Your task to perform on an android device: What's on my calendar tomorrow? Image 0: 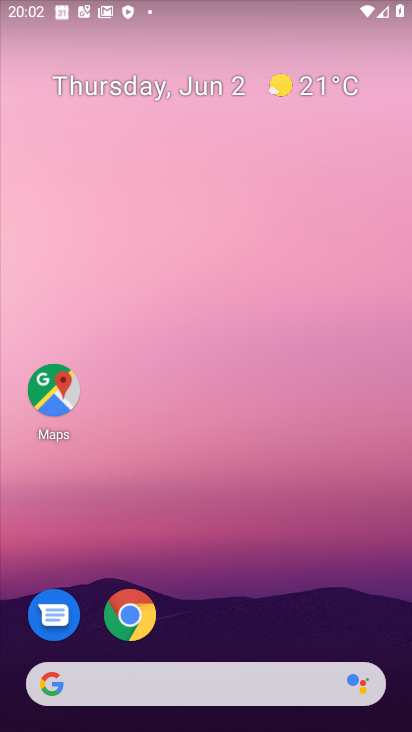
Step 0: drag from (249, 627) to (278, 0)
Your task to perform on an android device: What's on my calendar tomorrow? Image 1: 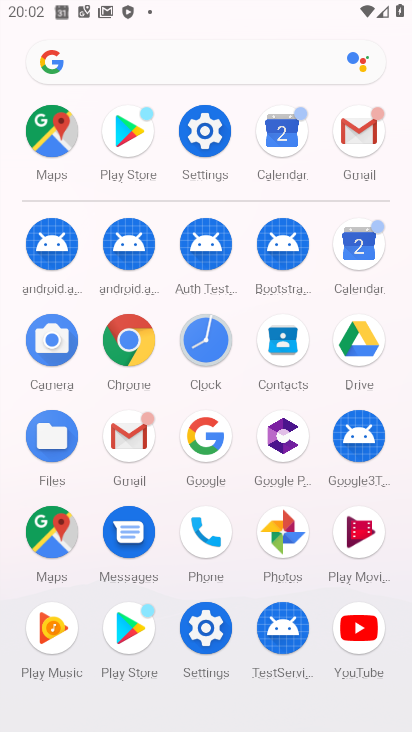
Step 1: click (272, 118)
Your task to perform on an android device: What's on my calendar tomorrow? Image 2: 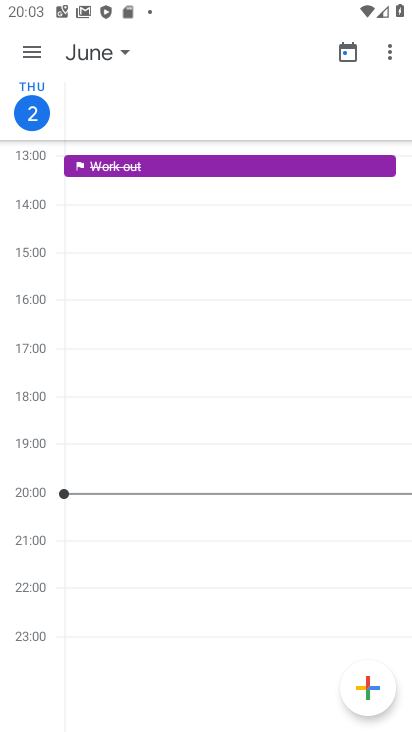
Step 2: task complete